Your task to perform on an android device: Show me popular videos on Youtube Image 0: 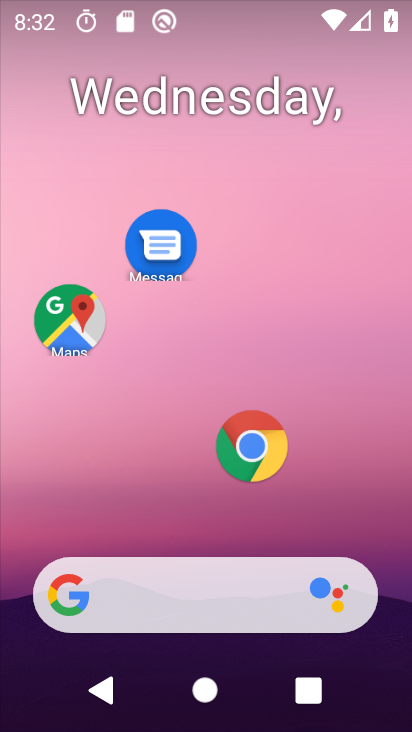
Step 0: press home button
Your task to perform on an android device: Show me popular videos on Youtube Image 1: 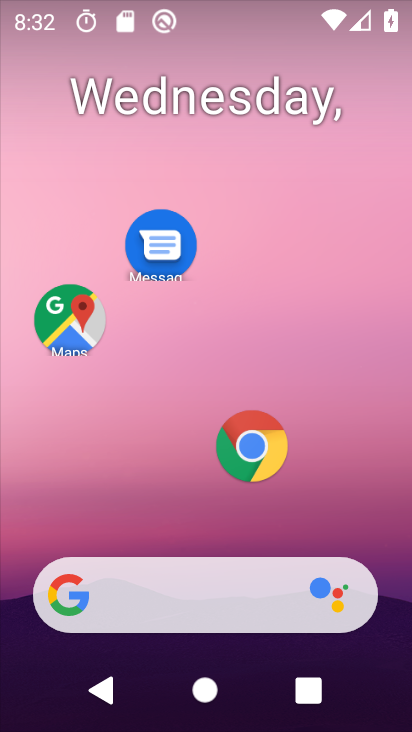
Step 1: drag from (196, 523) to (194, 2)
Your task to perform on an android device: Show me popular videos on Youtube Image 2: 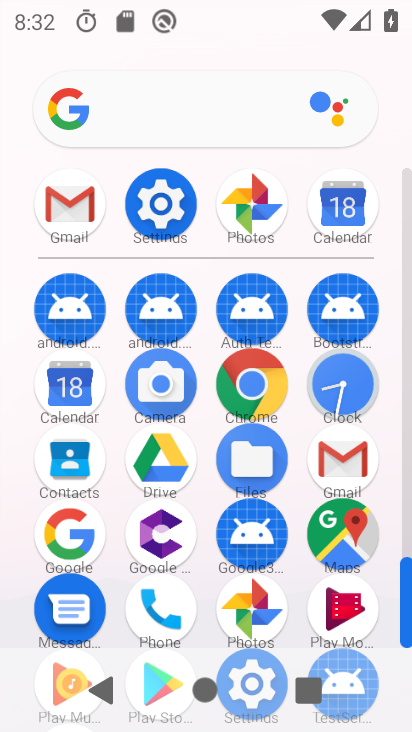
Step 2: drag from (299, 580) to (299, 173)
Your task to perform on an android device: Show me popular videos on Youtube Image 3: 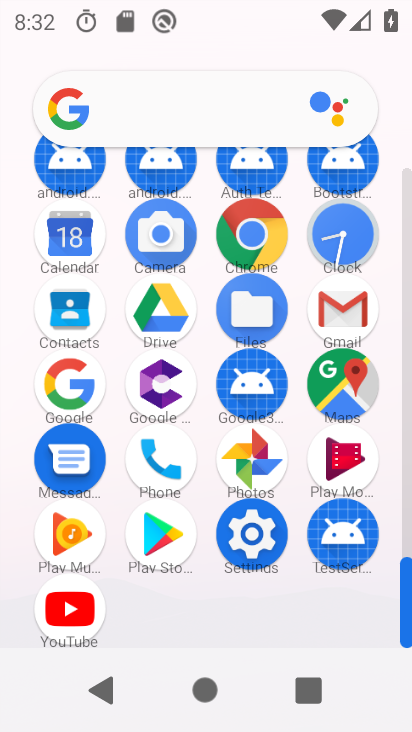
Step 3: click (64, 602)
Your task to perform on an android device: Show me popular videos on Youtube Image 4: 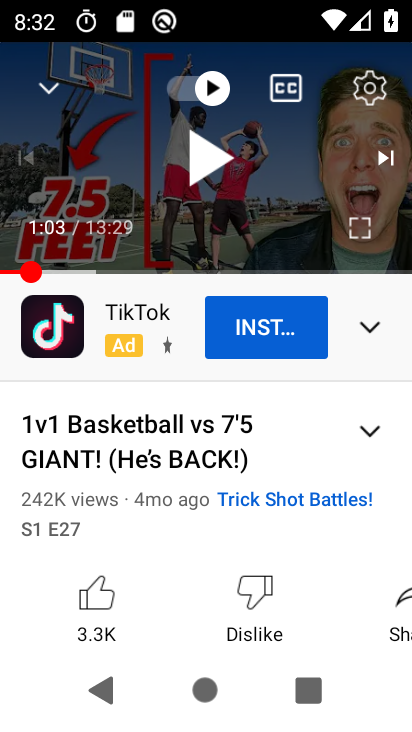
Step 4: press back button
Your task to perform on an android device: Show me popular videos on Youtube Image 5: 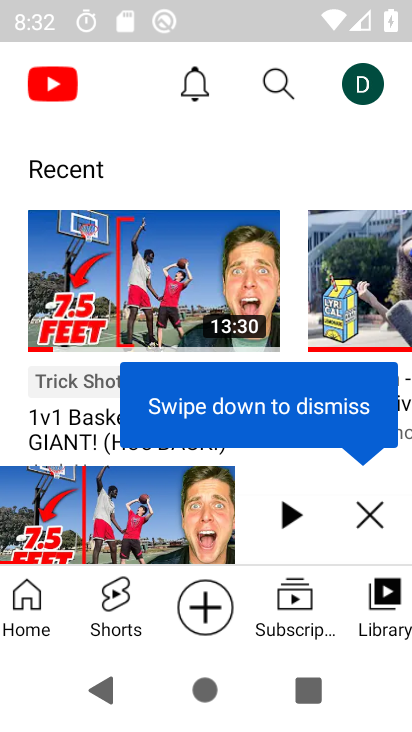
Step 5: click (371, 519)
Your task to perform on an android device: Show me popular videos on Youtube Image 6: 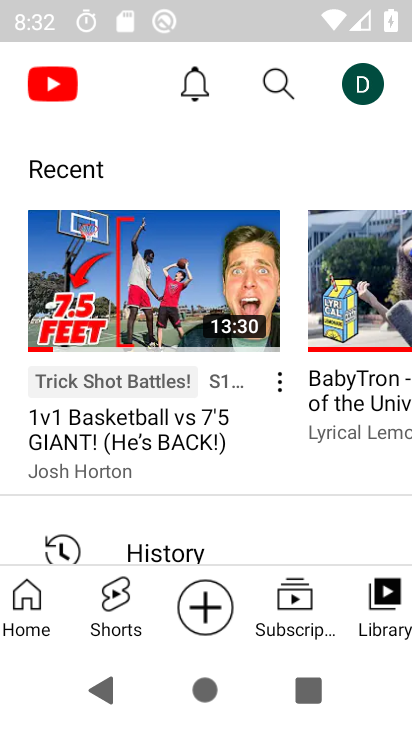
Step 6: click (26, 594)
Your task to perform on an android device: Show me popular videos on Youtube Image 7: 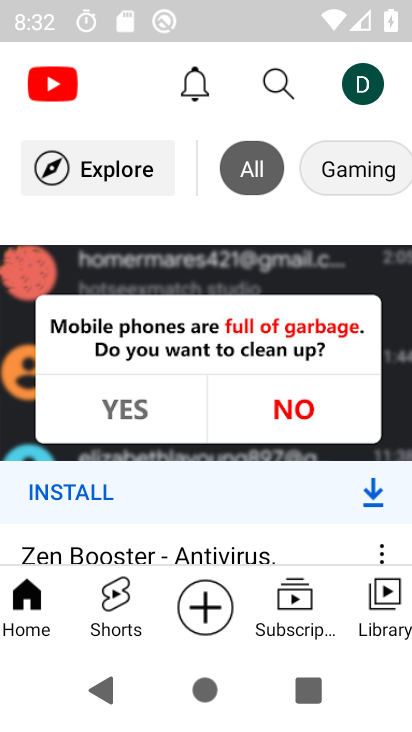
Step 7: drag from (210, 532) to (244, 99)
Your task to perform on an android device: Show me popular videos on Youtube Image 8: 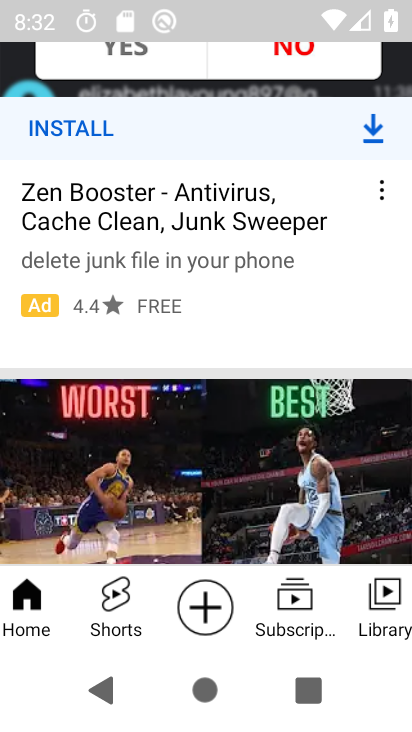
Step 8: drag from (202, 519) to (199, 138)
Your task to perform on an android device: Show me popular videos on Youtube Image 9: 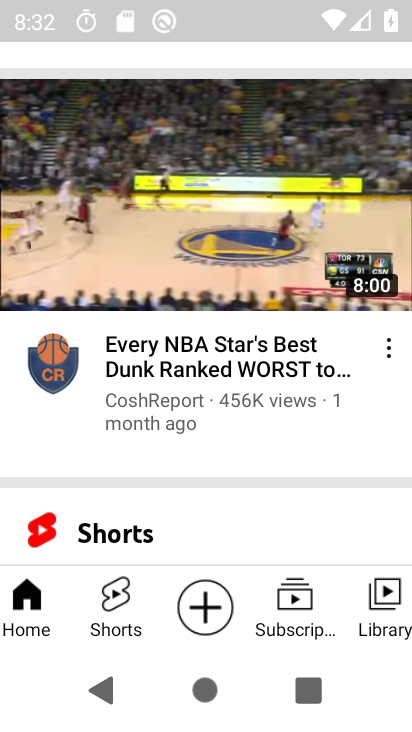
Step 9: drag from (206, 521) to (215, 151)
Your task to perform on an android device: Show me popular videos on Youtube Image 10: 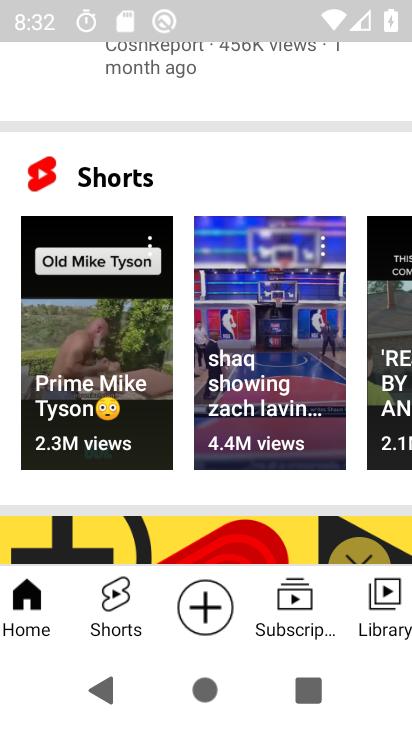
Step 10: drag from (139, 123) to (148, 582)
Your task to perform on an android device: Show me popular videos on Youtube Image 11: 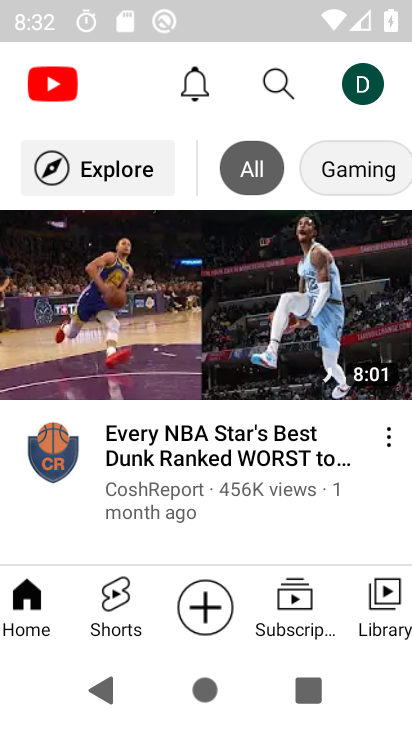
Step 11: click (86, 166)
Your task to perform on an android device: Show me popular videos on Youtube Image 12: 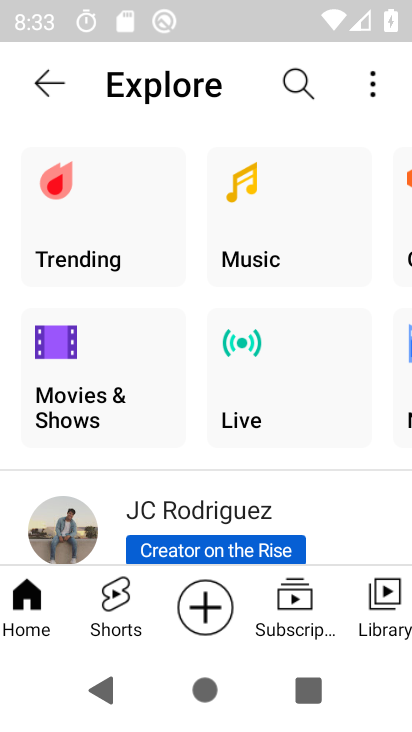
Step 12: click (98, 213)
Your task to perform on an android device: Show me popular videos on Youtube Image 13: 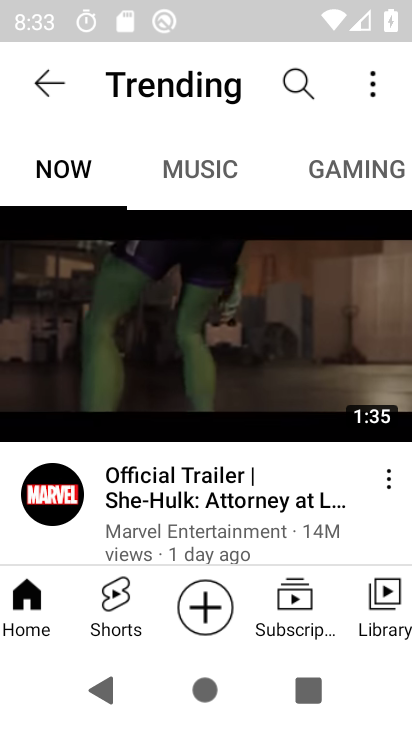
Step 13: task complete